Your task to perform on an android device: change the clock display to show seconds Image 0: 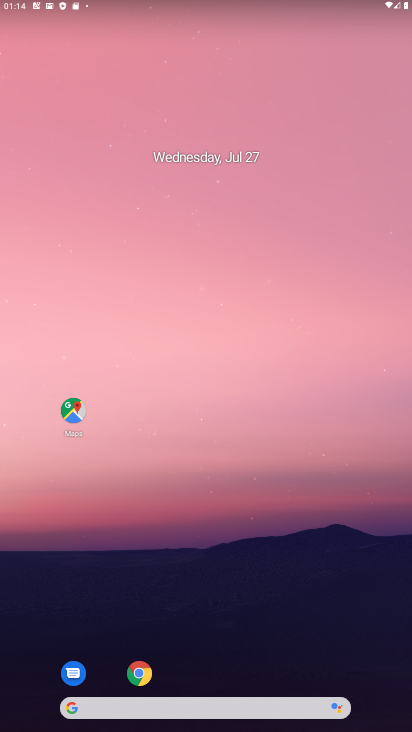
Step 0: drag from (264, 615) to (262, 233)
Your task to perform on an android device: change the clock display to show seconds Image 1: 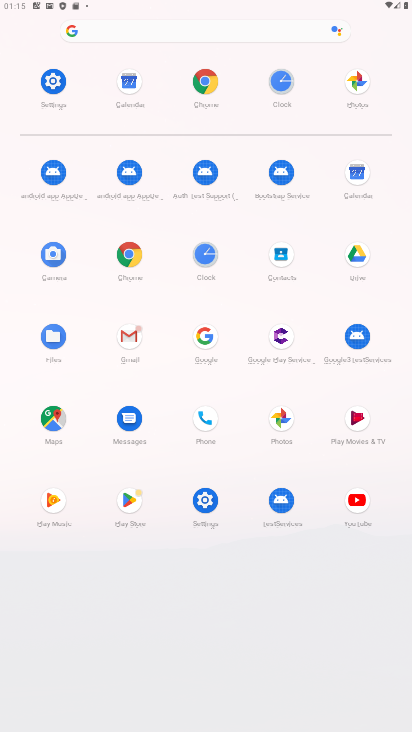
Step 1: click (203, 250)
Your task to perform on an android device: change the clock display to show seconds Image 2: 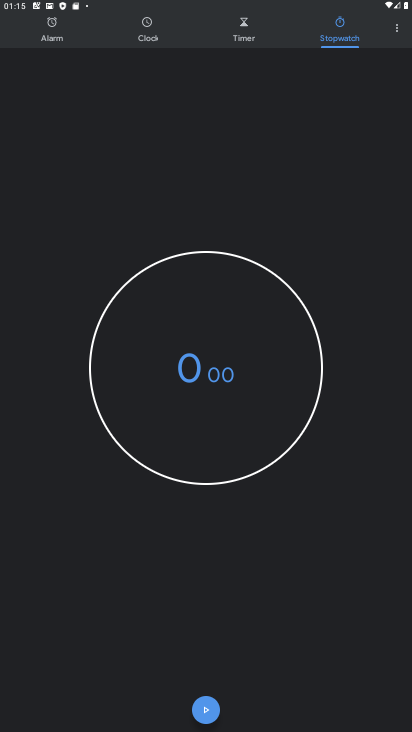
Step 2: click (398, 26)
Your task to perform on an android device: change the clock display to show seconds Image 3: 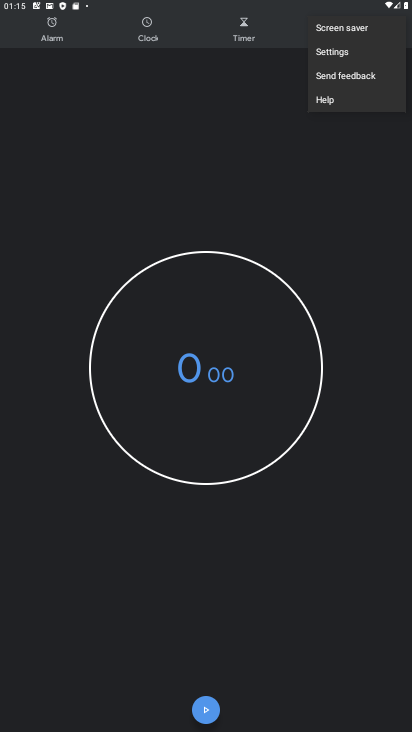
Step 3: click (356, 46)
Your task to perform on an android device: change the clock display to show seconds Image 4: 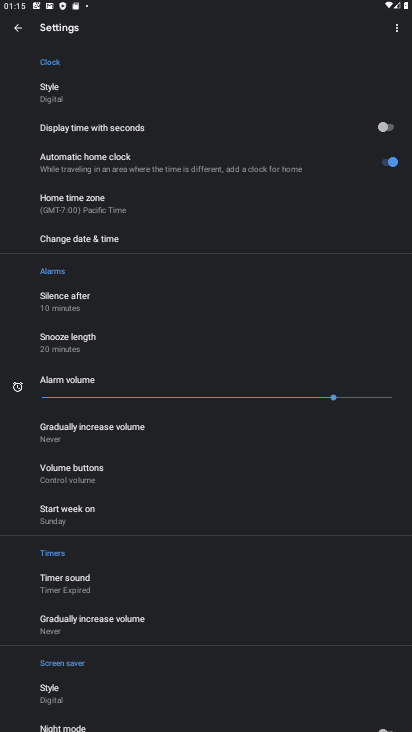
Step 4: click (397, 122)
Your task to perform on an android device: change the clock display to show seconds Image 5: 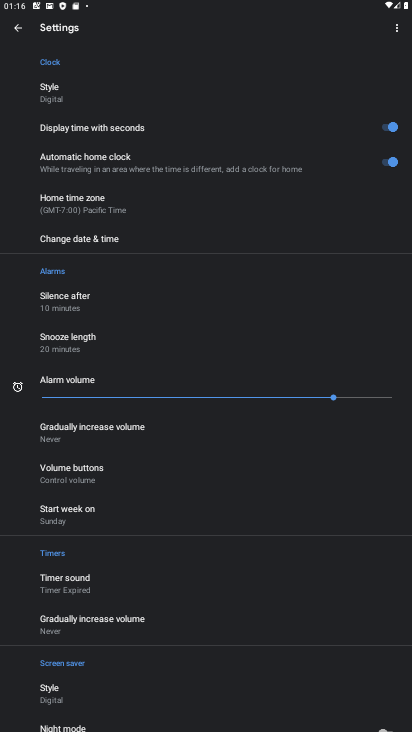
Step 5: task complete